Your task to perform on an android device: Go to Reddit.com Image 0: 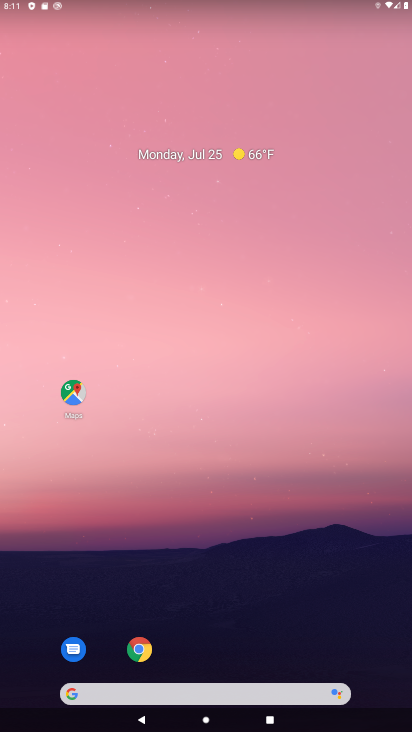
Step 0: click (153, 651)
Your task to perform on an android device: Go to Reddit.com Image 1: 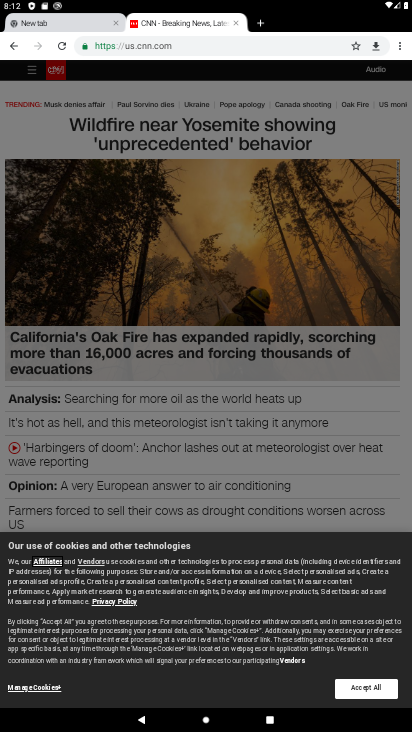
Step 1: click (259, 24)
Your task to perform on an android device: Go to Reddit.com Image 2: 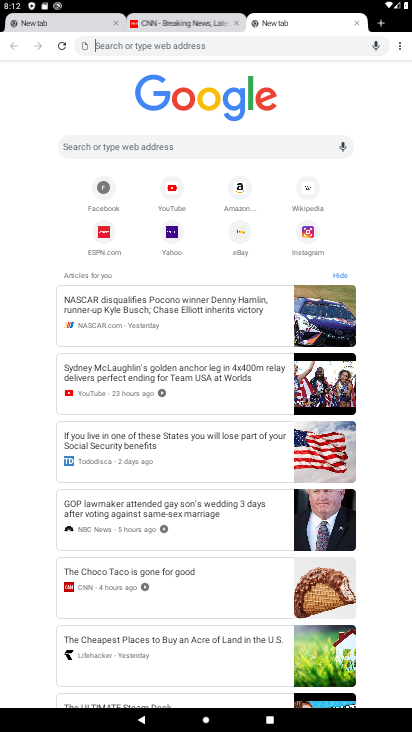
Step 2: click (157, 143)
Your task to perform on an android device: Go to Reddit.com Image 3: 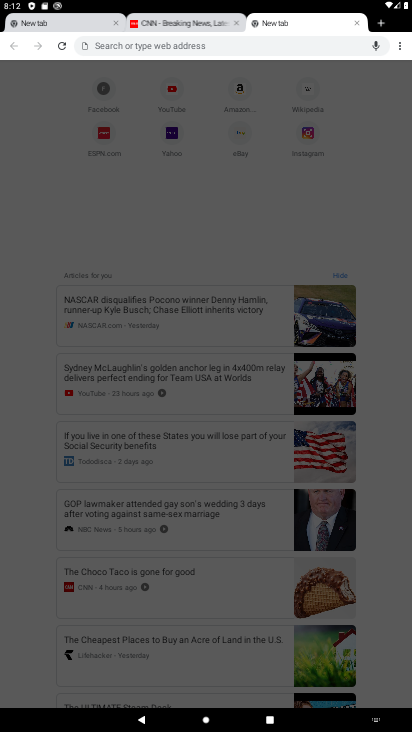
Step 3: type "Reddit.com"
Your task to perform on an android device: Go to Reddit.com Image 4: 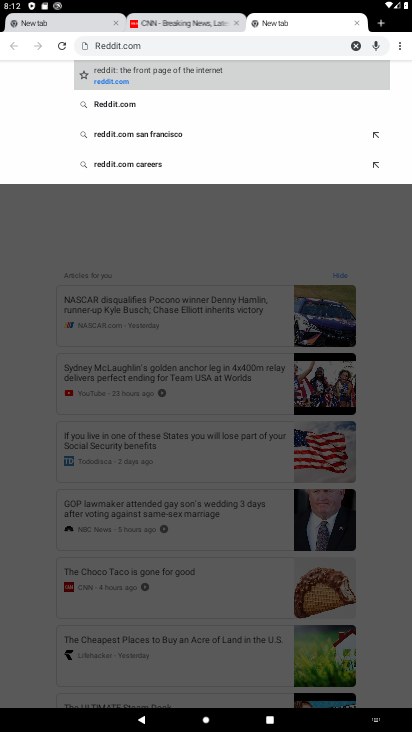
Step 4: click (160, 84)
Your task to perform on an android device: Go to Reddit.com Image 5: 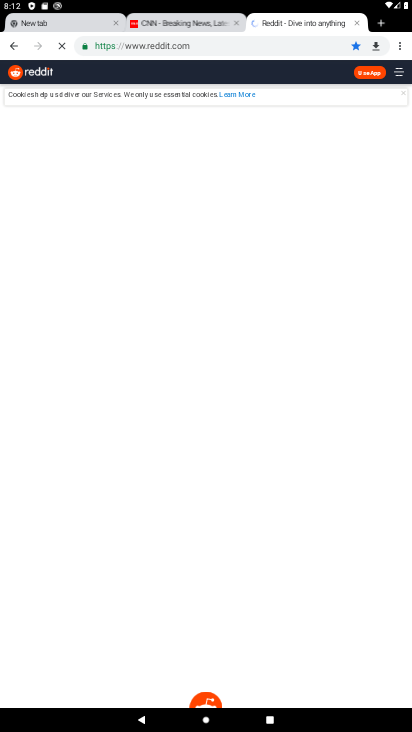
Step 5: task complete